Your task to perform on an android device: check out phone information Image 0: 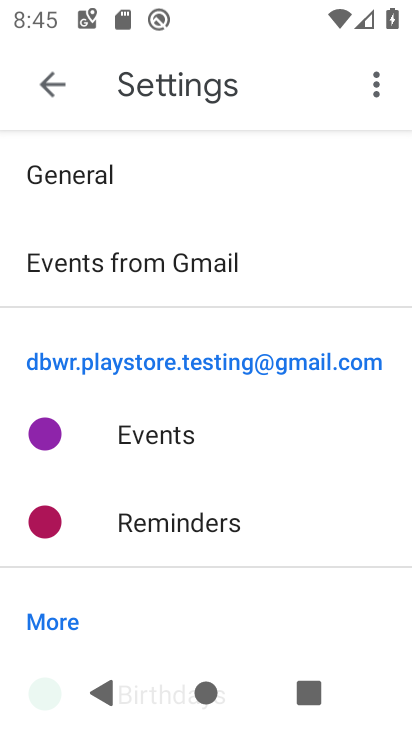
Step 0: press home button
Your task to perform on an android device: check out phone information Image 1: 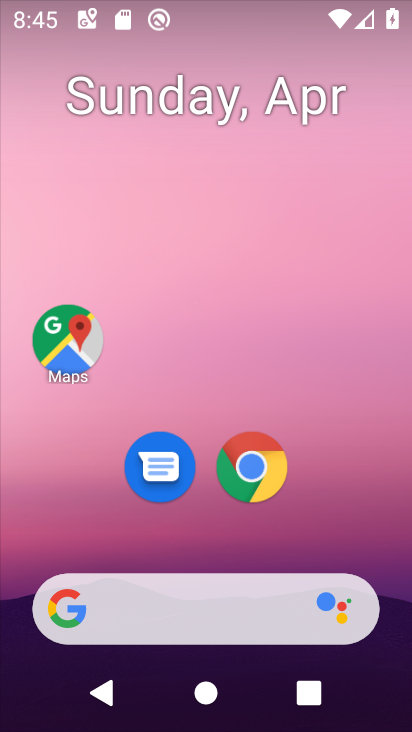
Step 1: drag from (307, 546) to (320, 6)
Your task to perform on an android device: check out phone information Image 2: 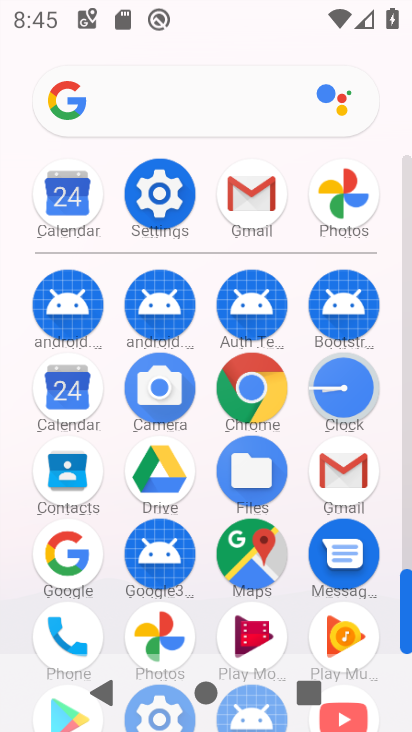
Step 2: click (164, 204)
Your task to perform on an android device: check out phone information Image 3: 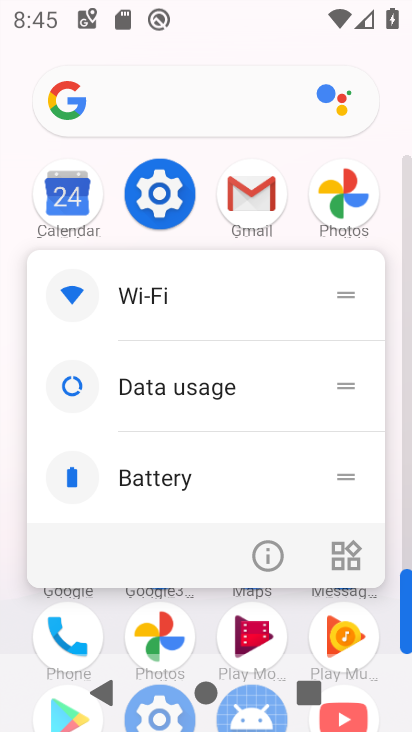
Step 3: click (157, 212)
Your task to perform on an android device: check out phone information Image 4: 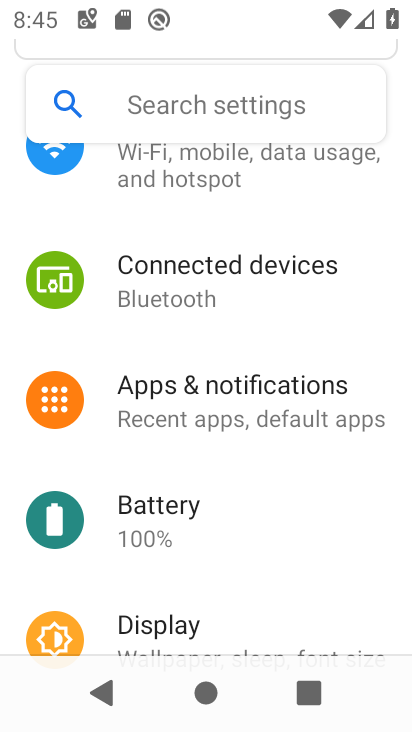
Step 4: drag from (179, 445) to (206, 321)
Your task to perform on an android device: check out phone information Image 5: 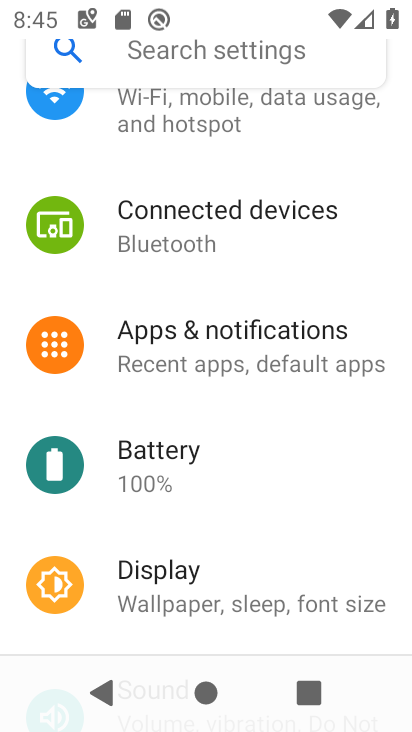
Step 5: drag from (199, 487) to (225, 361)
Your task to perform on an android device: check out phone information Image 6: 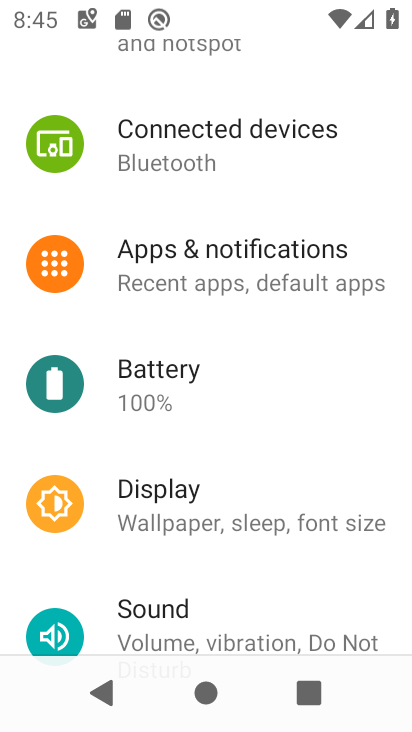
Step 6: drag from (231, 474) to (226, 407)
Your task to perform on an android device: check out phone information Image 7: 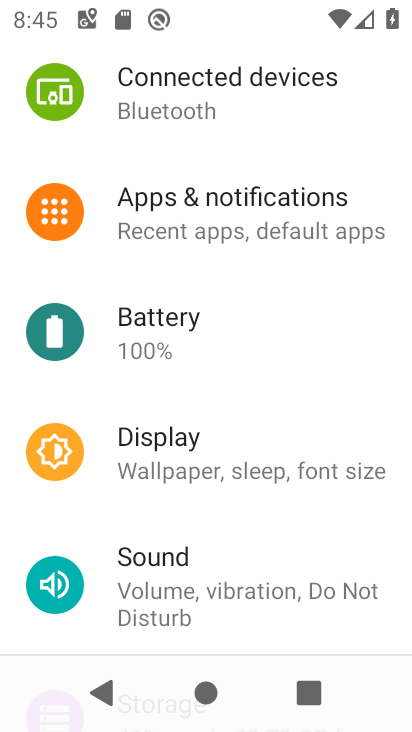
Step 7: drag from (228, 463) to (228, 386)
Your task to perform on an android device: check out phone information Image 8: 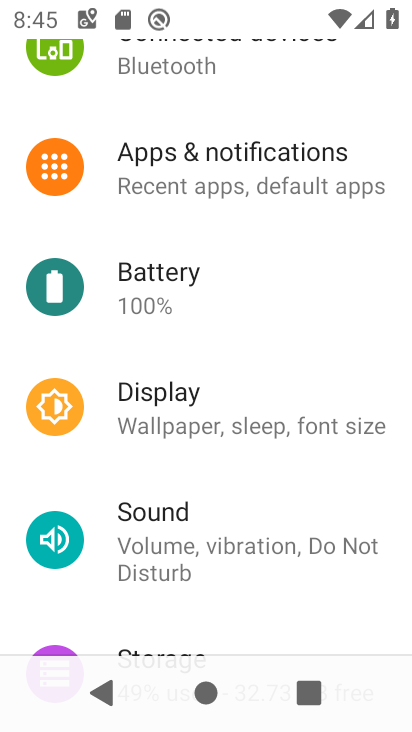
Step 8: drag from (228, 421) to (228, 346)
Your task to perform on an android device: check out phone information Image 9: 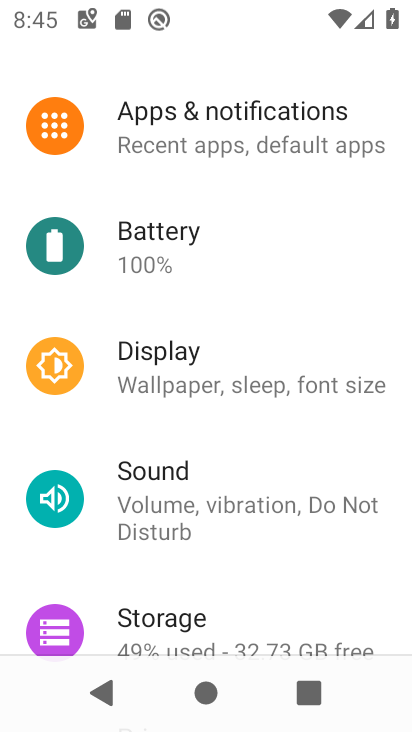
Step 9: drag from (261, 444) to (261, 373)
Your task to perform on an android device: check out phone information Image 10: 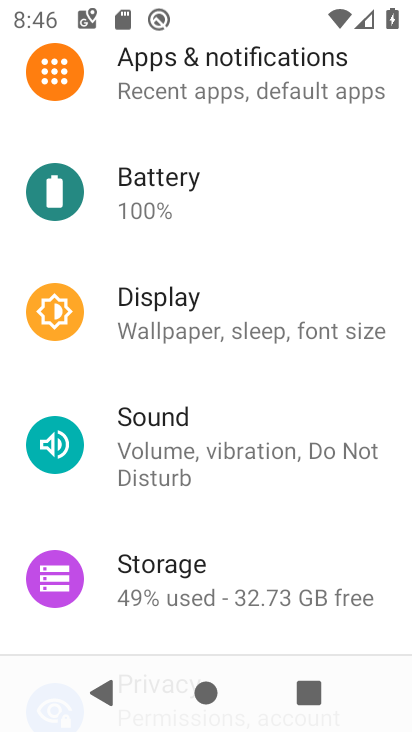
Step 10: drag from (262, 476) to (262, 398)
Your task to perform on an android device: check out phone information Image 11: 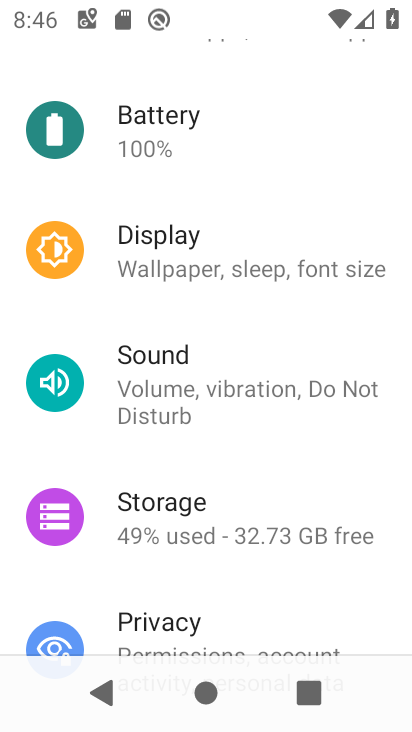
Step 11: drag from (260, 421) to (265, 336)
Your task to perform on an android device: check out phone information Image 12: 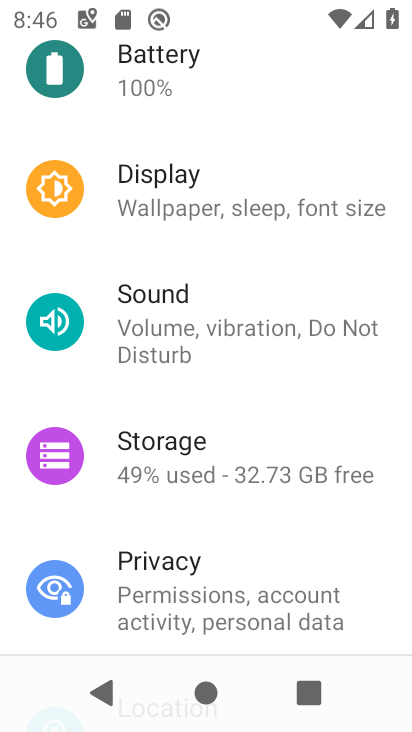
Step 12: drag from (251, 447) to (251, 365)
Your task to perform on an android device: check out phone information Image 13: 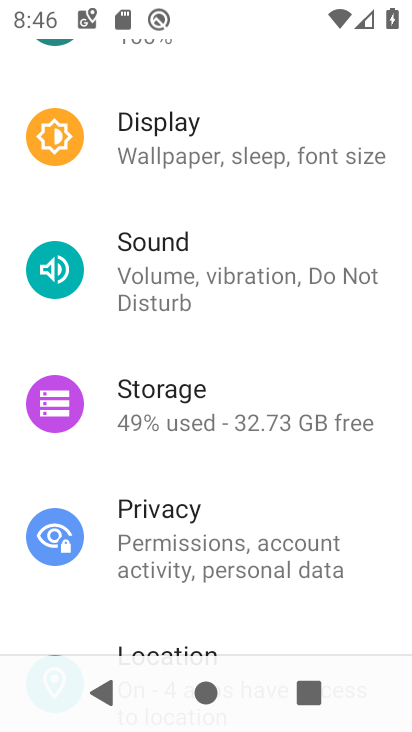
Step 13: drag from (244, 430) to (247, 349)
Your task to perform on an android device: check out phone information Image 14: 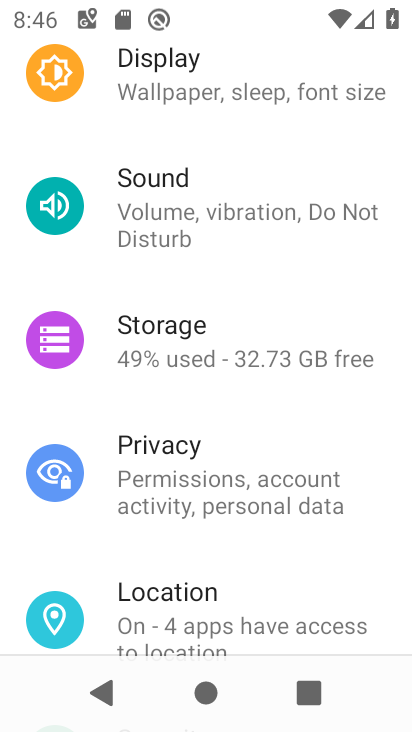
Step 14: drag from (235, 476) to (238, 374)
Your task to perform on an android device: check out phone information Image 15: 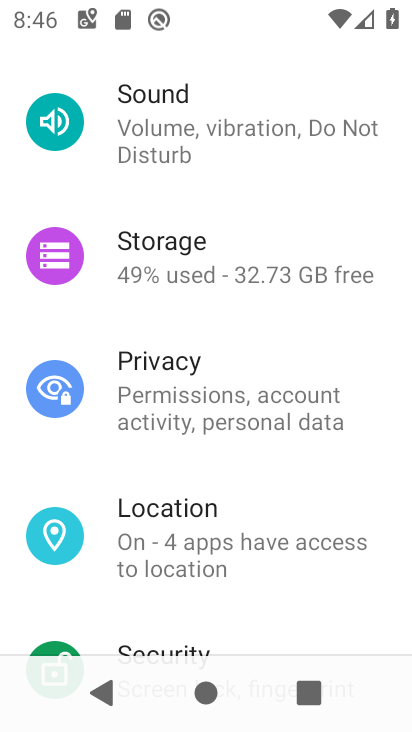
Step 15: drag from (216, 458) to (239, 353)
Your task to perform on an android device: check out phone information Image 16: 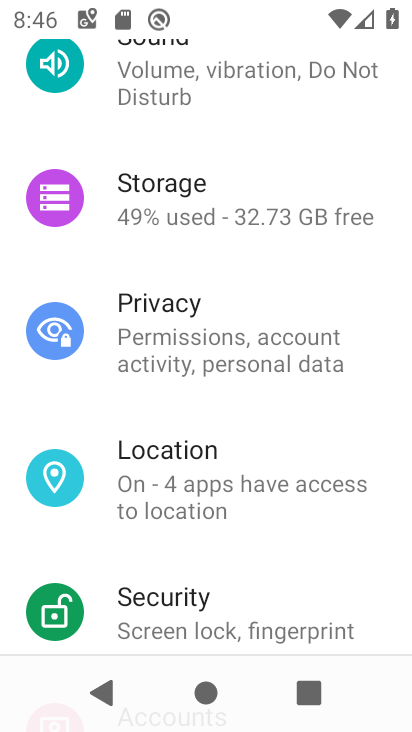
Step 16: drag from (239, 424) to (255, 325)
Your task to perform on an android device: check out phone information Image 17: 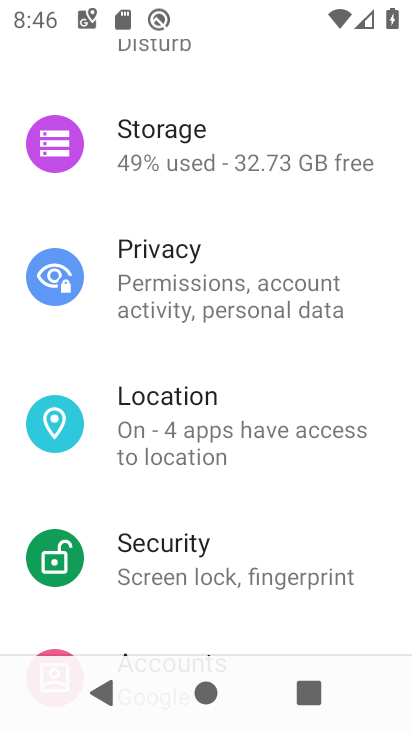
Step 17: drag from (237, 496) to (257, 382)
Your task to perform on an android device: check out phone information Image 18: 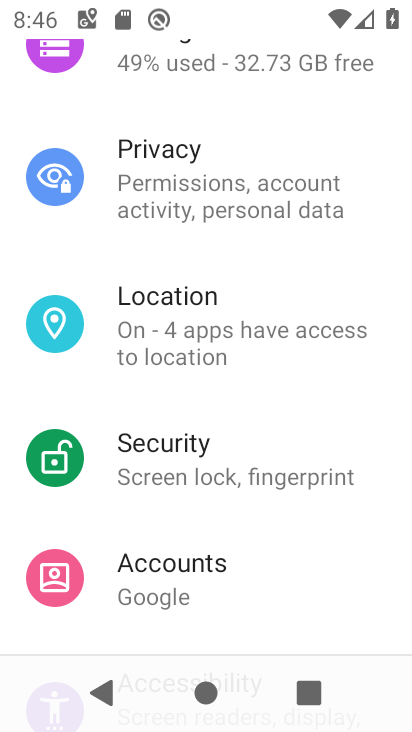
Step 18: drag from (206, 572) to (237, 403)
Your task to perform on an android device: check out phone information Image 19: 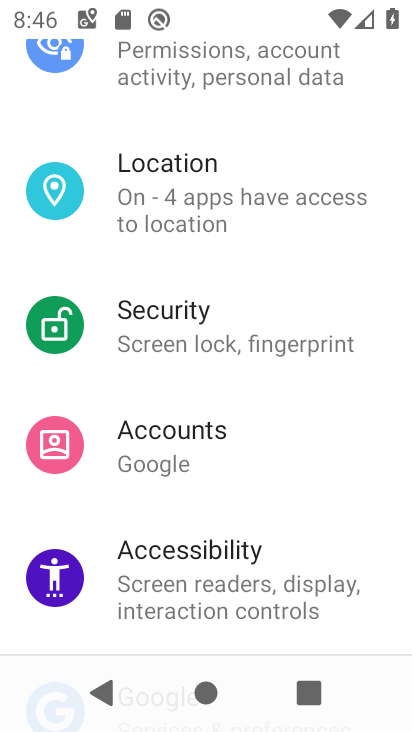
Step 19: drag from (230, 552) to (233, 443)
Your task to perform on an android device: check out phone information Image 20: 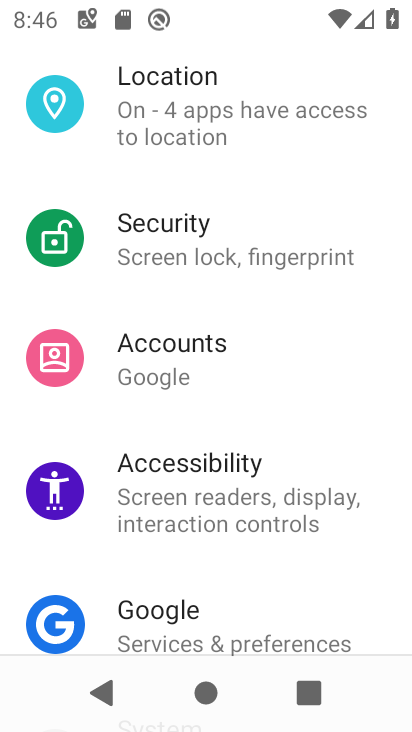
Step 20: drag from (203, 559) to (224, 467)
Your task to perform on an android device: check out phone information Image 21: 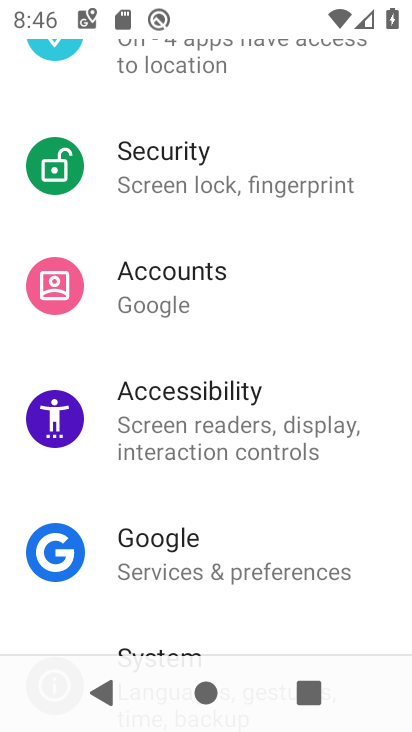
Step 21: drag from (219, 550) to (223, 437)
Your task to perform on an android device: check out phone information Image 22: 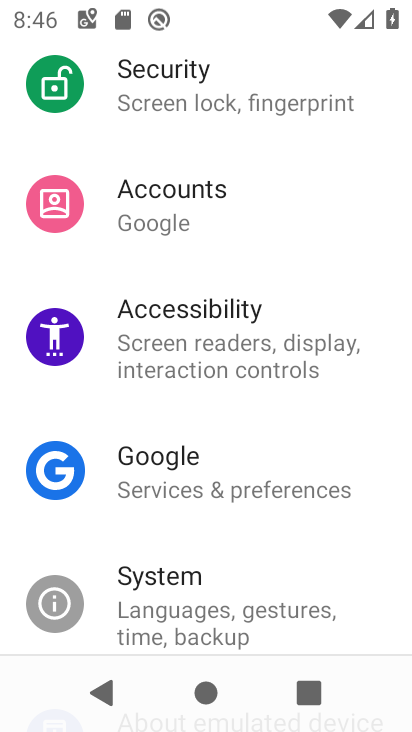
Step 22: drag from (220, 546) to (245, 397)
Your task to perform on an android device: check out phone information Image 23: 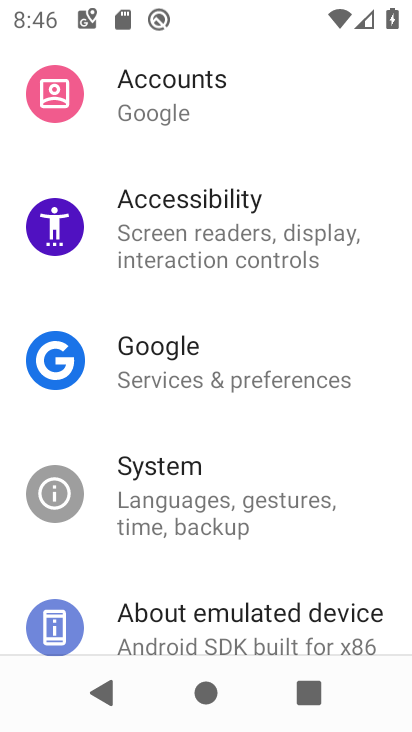
Step 23: drag from (242, 602) to (268, 476)
Your task to perform on an android device: check out phone information Image 24: 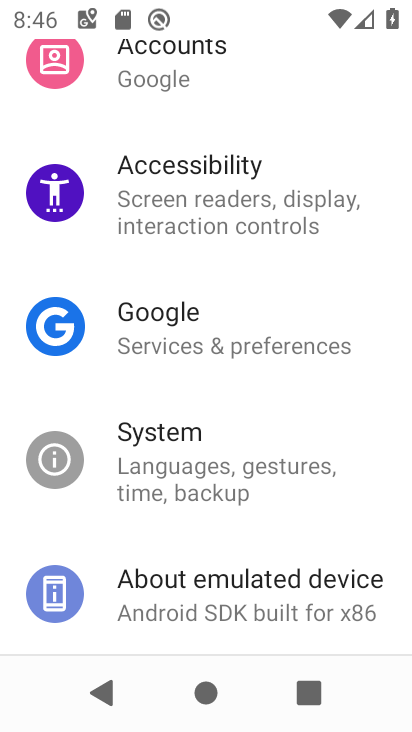
Step 24: click (262, 588)
Your task to perform on an android device: check out phone information Image 25: 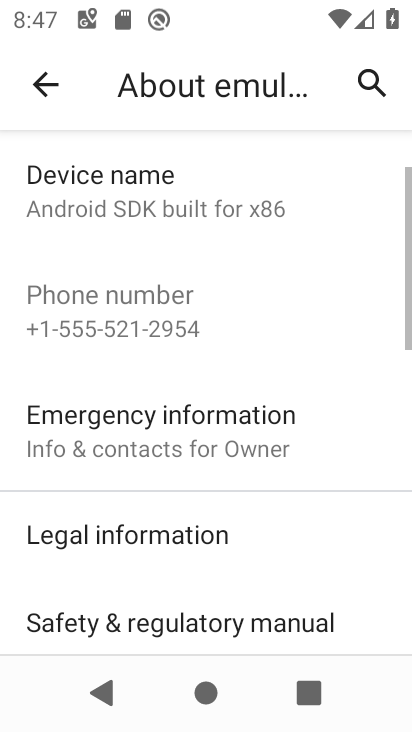
Step 25: task complete